Your task to perform on an android device: toggle translation in the chrome app Image 0: 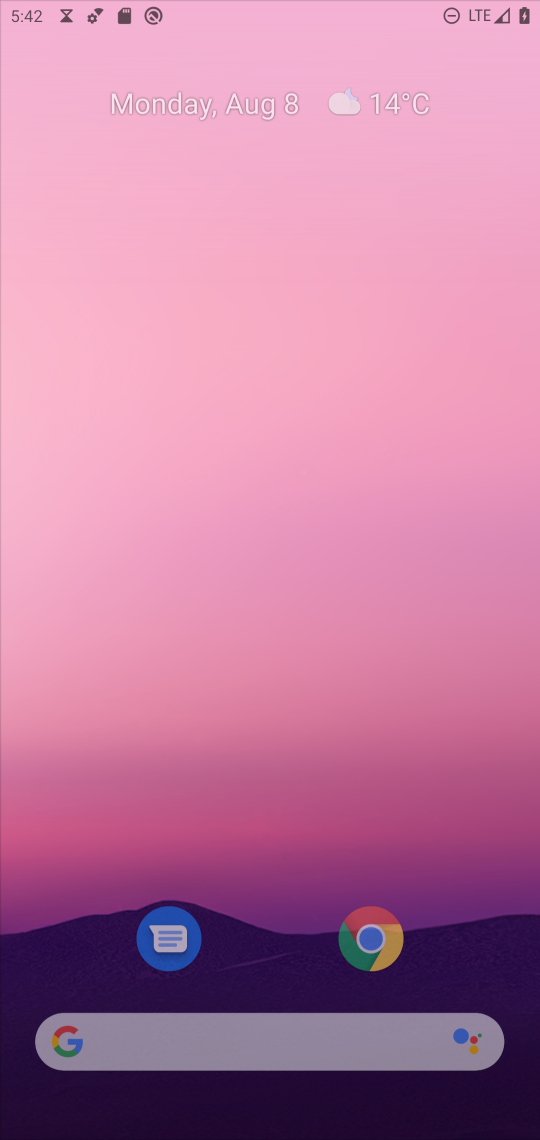
Step 0: press home button
Your task to perform on an android device: toggle translation in the chrome app Image 1: 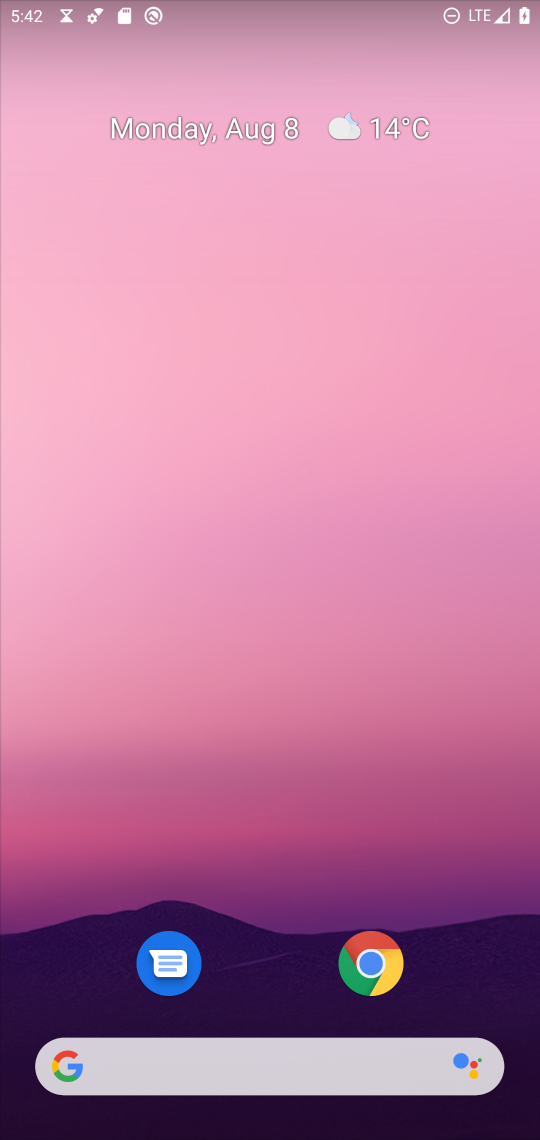
Step 1: click (387, 949)
Your task to perform on an android device: toggle translation in the chrome app Image 2: 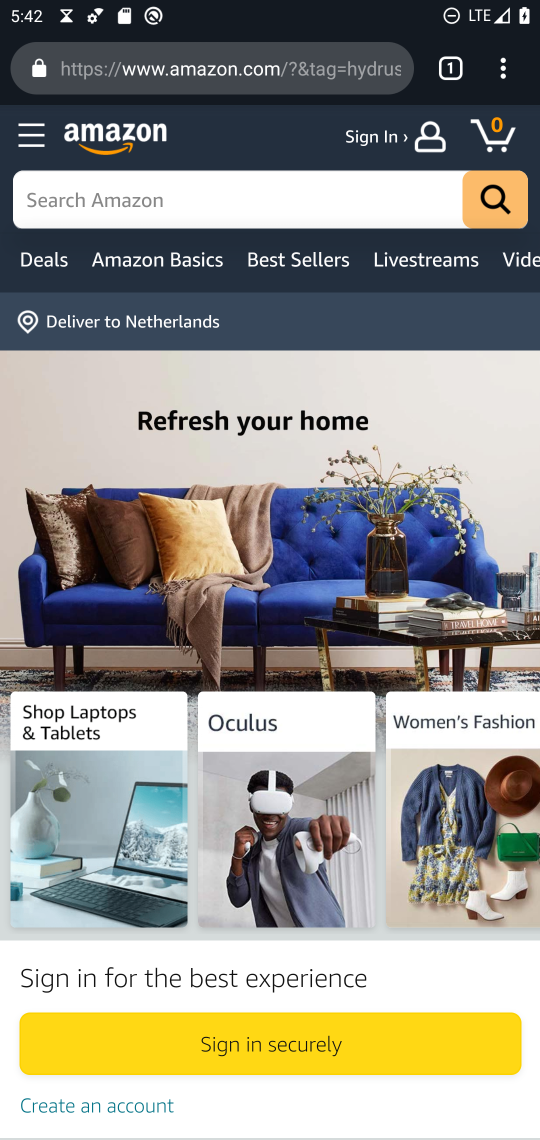
Step 2: click (494, 65)
Your task to perform on an android device: toggle translation in the chrome app Image 3: 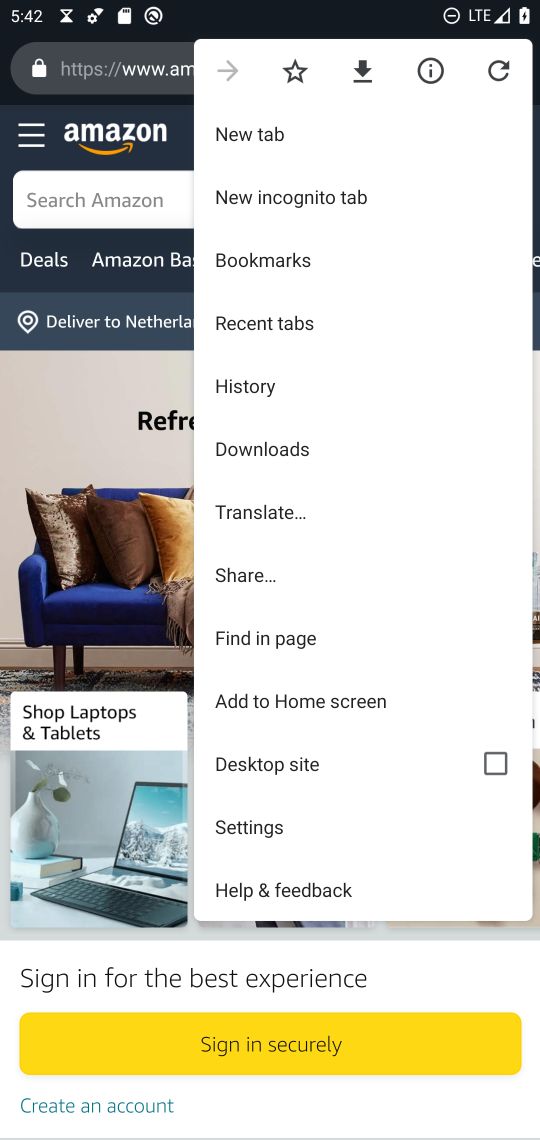
Step 3: click (288, 817)
Your task to perform on an android device: toggle translation in the chrome app Image 4: 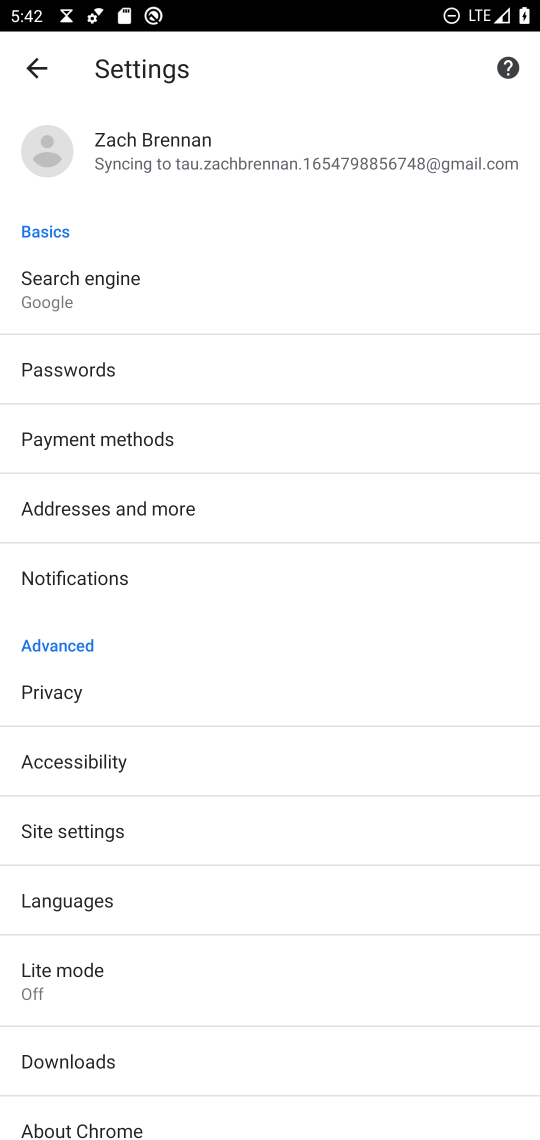
Step 4: click (110, 894)
Your task to perform on an android device: toggle translation in the chrome app Image 5: 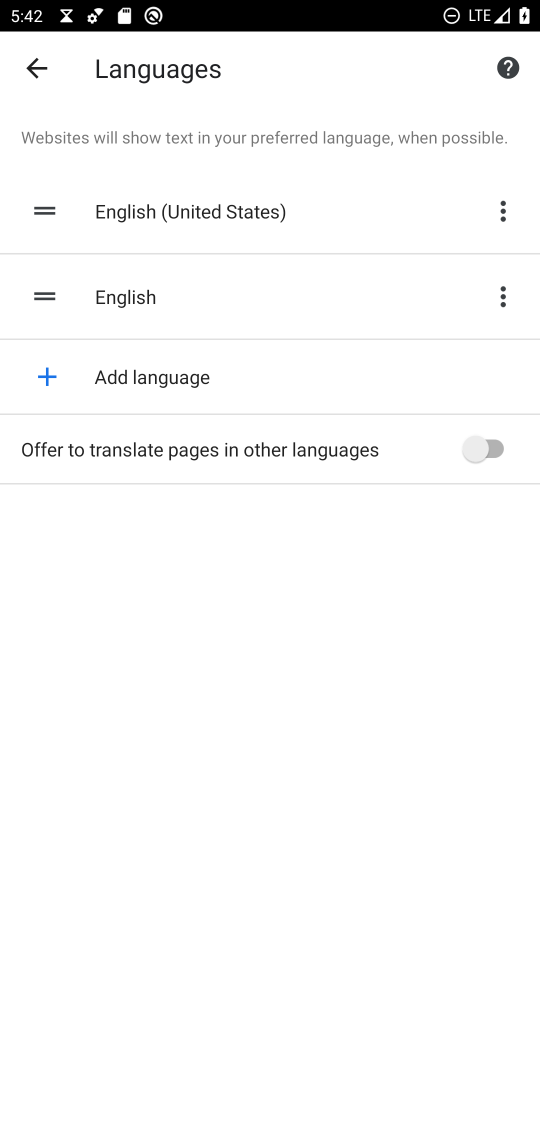
Step 5: click (503, 446)
Your task to perform on an android device: toggle translation in the chrome app Image 6: 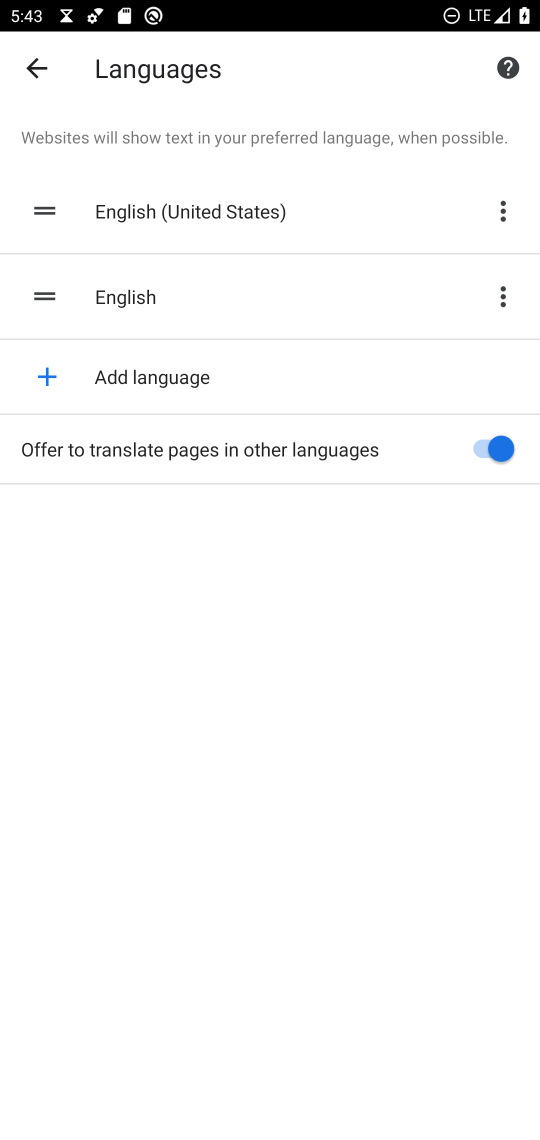
Step 6: task complete